Your task to perform on an android device: Open Chrome and go to settings Image 0: 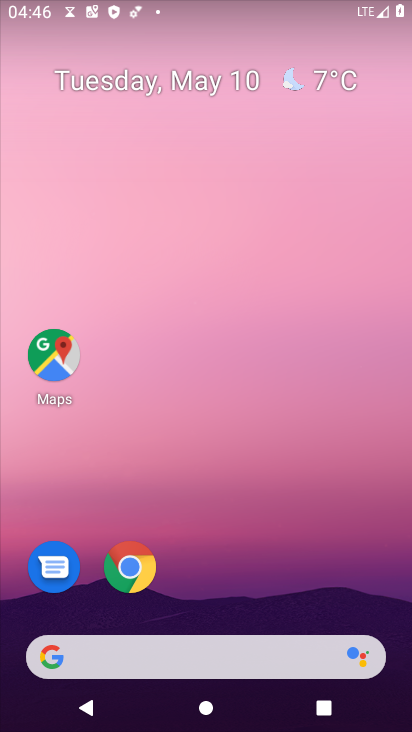
Step 0: click (124, 566)
Your task to perform on an android device: Open Chrome and go to settings Image 1: 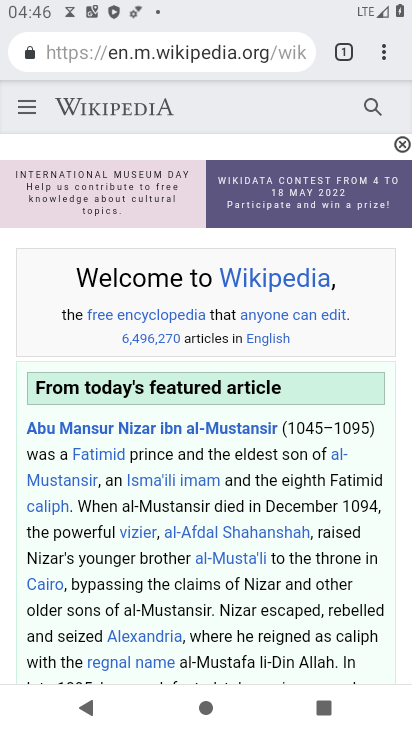
Step 1: click (383, 53)
Your task to perform on an android device: Open Chrome and go to settings Image 2: 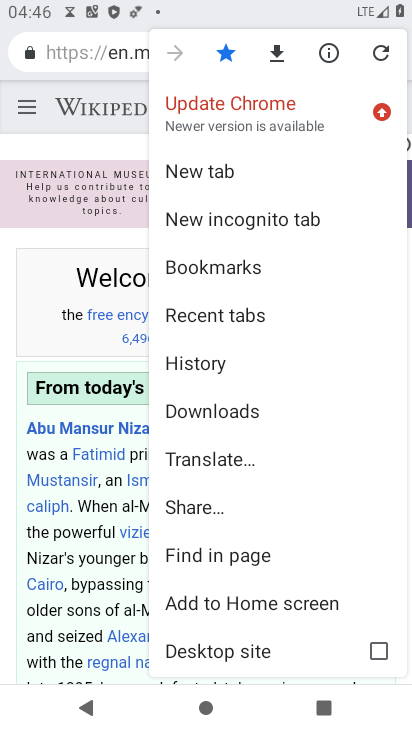
Step 2: drag from (227, 594) to (248, 443)
Your task to perform on an android device: Open Chrome and go to settings Image 3: 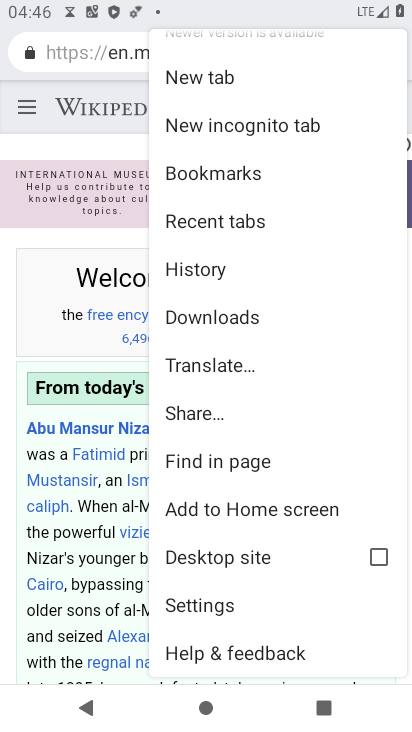
Step 3: click (218, 610)
Your task to perform on an android device: Open Chrome and go to settings Image 4: 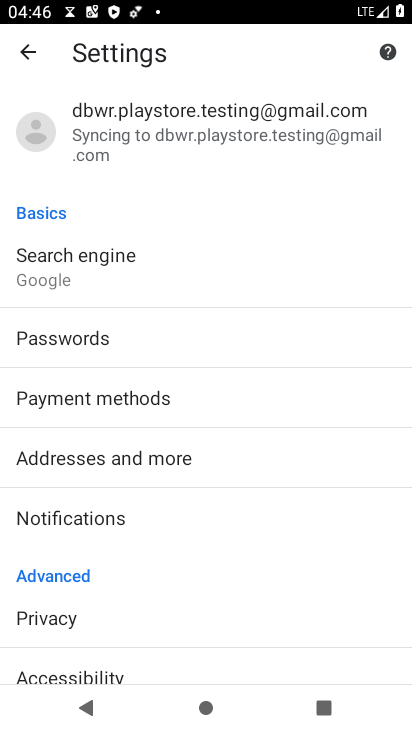
Step 4: task complete